Your task to perform on an android device: allow cookies in the chrome app Image 0: 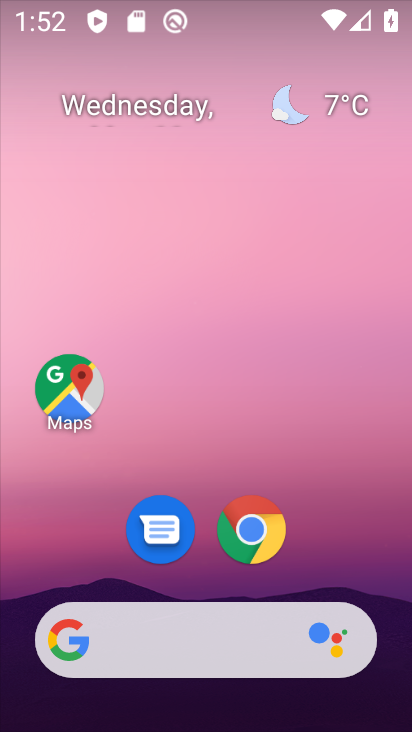
Step 0: click (250, 527)
Your task to perform on an android device: allow cookies in the chrome app Image 1: 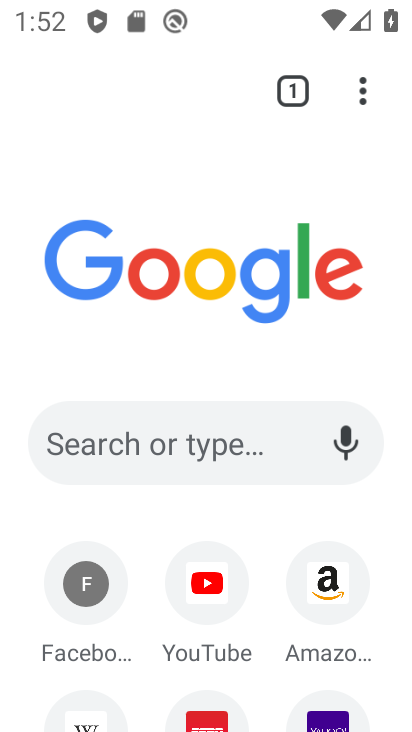
Step 1: click (357, 92)
Your task to perform on an android device: allow cookies in the chrome app Image 2: 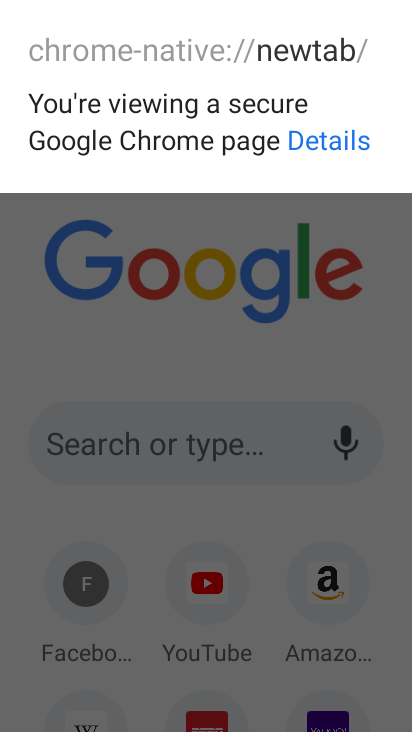
Step 2: click (405, 300)
Your task to perform on an android device: allow cookies in the chrome app Image 3: 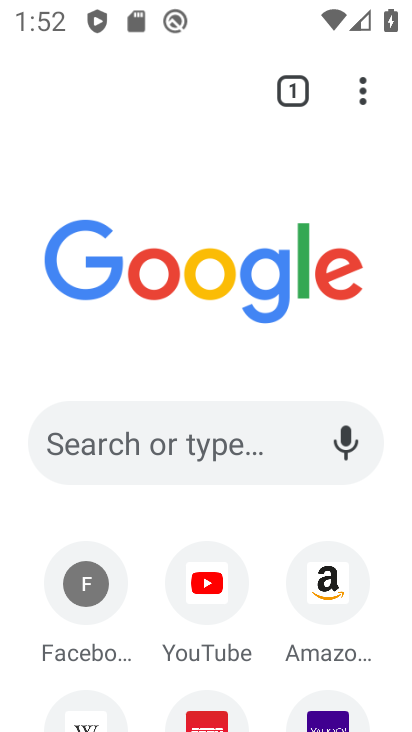
Step 3: click (347, 87)
Your task to perform on an android device: allow cookies in the chrome app Image 4: 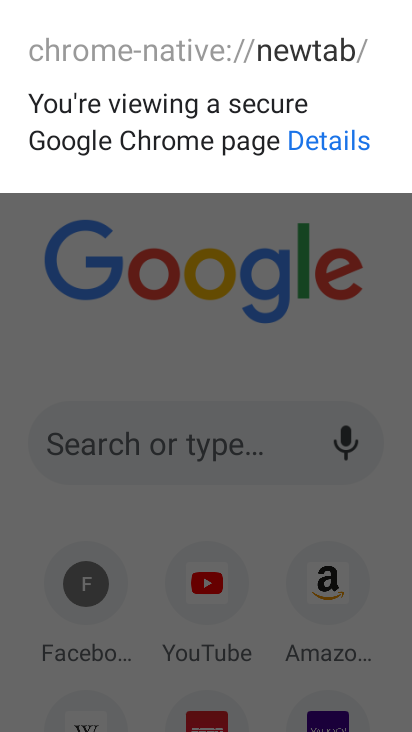
Step 4: click (322, 329)
Your task to perform on an android device: allow cookies in the chrome app Image 5: 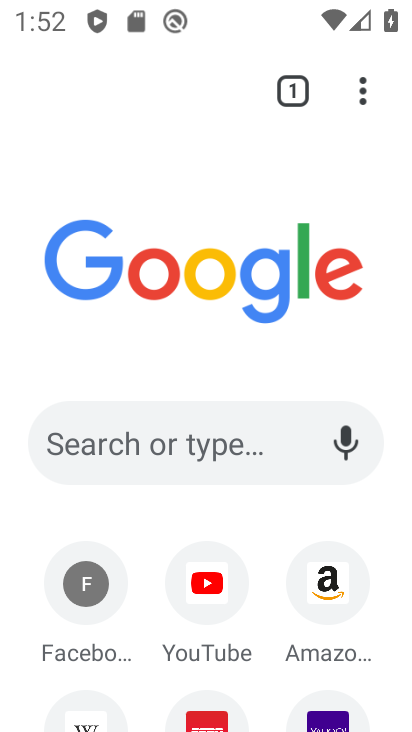
Step 5: click (366, 98)
Your task to perform on an android device: allow cookies in the chrome app Image 6: 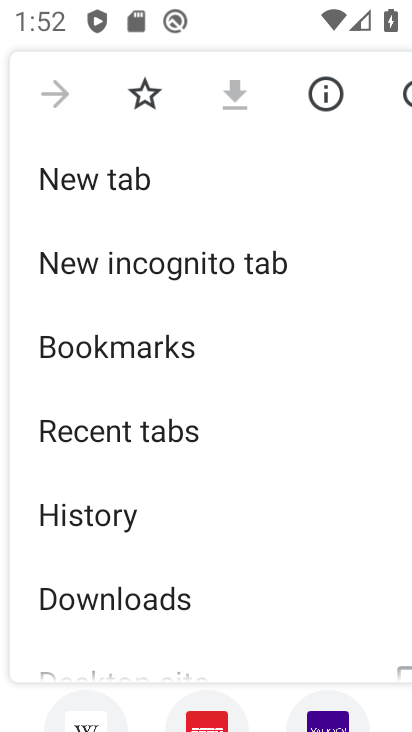
Step 6: drag from (98, 608) to (180, 178)
Your task to perform on an android device: allow cookies in the chrome app Image 7: 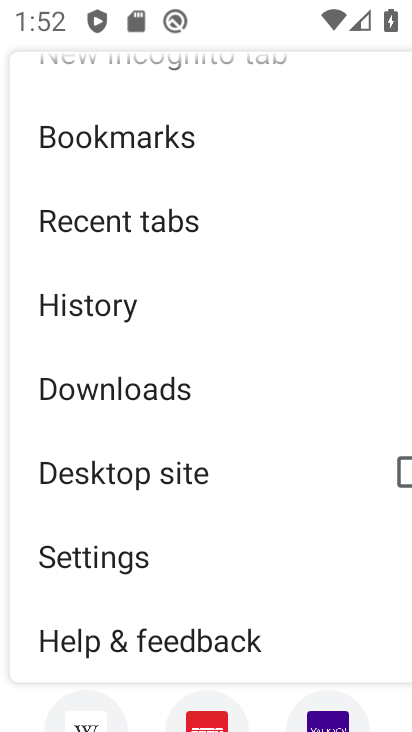
Step 7: click (133, 558)
Your task to perform on an android device: allow cookies in the chrome app Image 8: 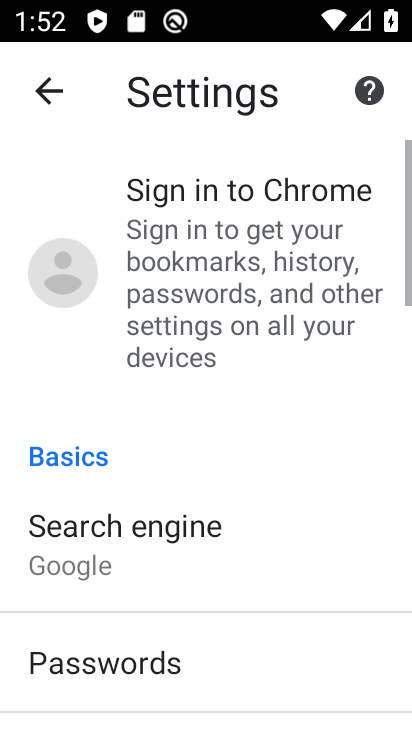
Step 8: drag from (134, 663) to (215, 296)
Your task to perform on an android device: allow cookies in the chrome app Image 9: 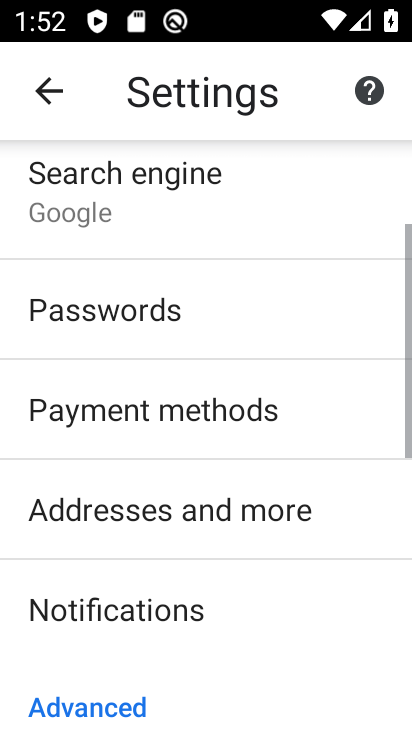
Step 9: drag from (154, 685) to (263, 305)
Your task to perform on an android device: allow cookies in the chrome app Image 10: 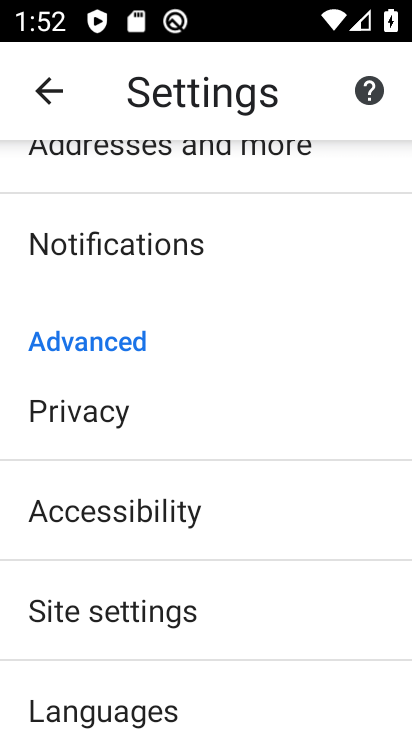
Step 10: click (146, 593)
Your task to perform on an android device: allow cookies in the chrome app Image 11: 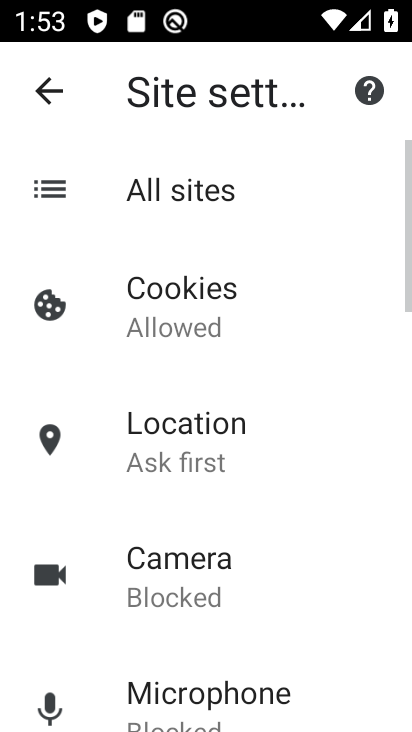
Step 11: click (164, 329)
Your task to perform on an android device: allow cookies in the chrome app Image 12: 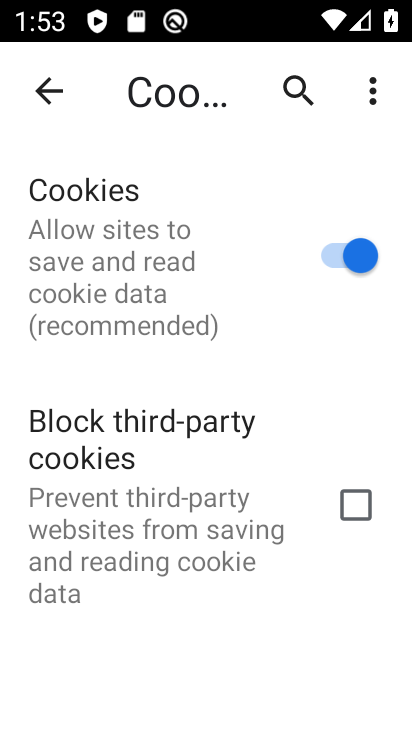
Step 12: task complete